Your task to perform on an android device: Open calendar and show me the fourth week of next month Image 0: 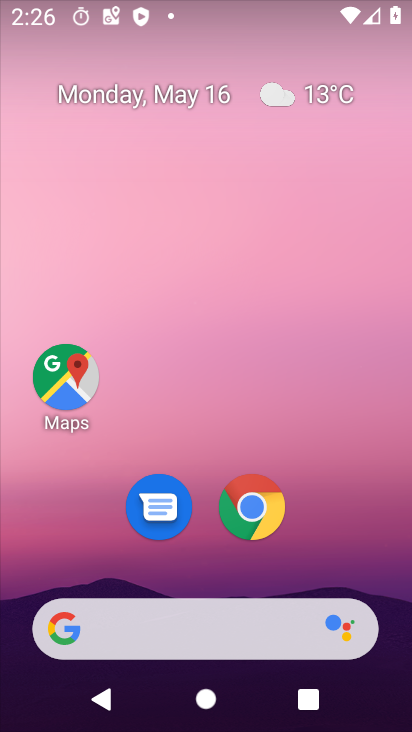
Step 0: drag from (363, 560) to (351, 202)
Your task to perform on an android device: Open calendar and show me the fourth week of next month Image 1: 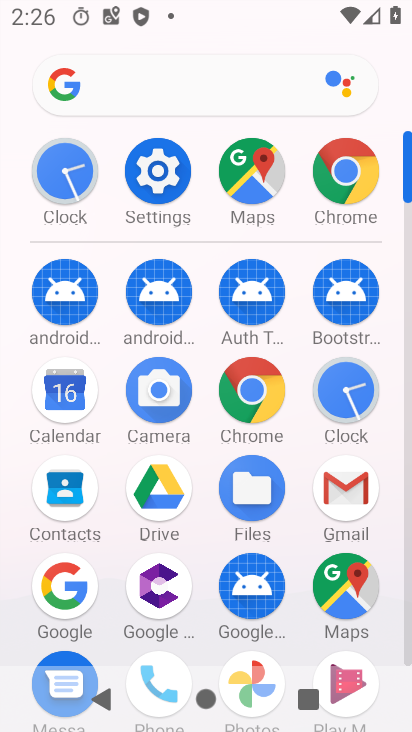
Step 1: click (69, 404)
Your task to perform on an android device: Open calendar and show me the fourth week of next month Image 2: 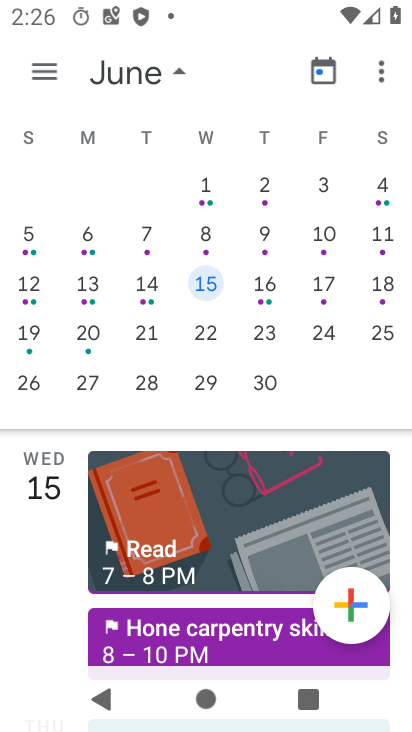
Step 2: click (203, 334)
Your task to perform on an android device: Open calendar and show me the fourth week of next month Image 3: 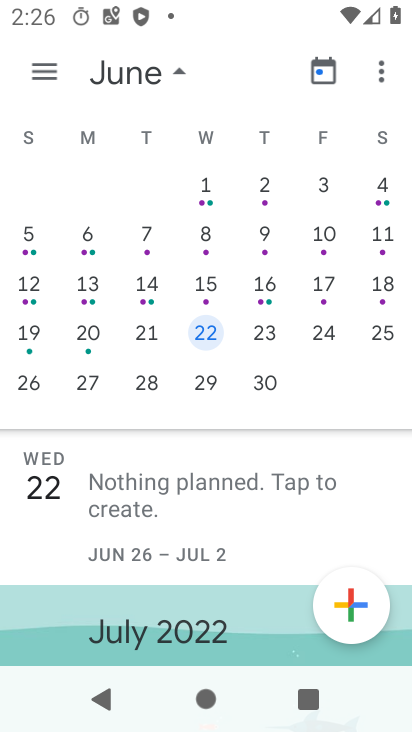
Step 3: task complete